Your task to perform on an android device: Toggle the flashlight Image 0: 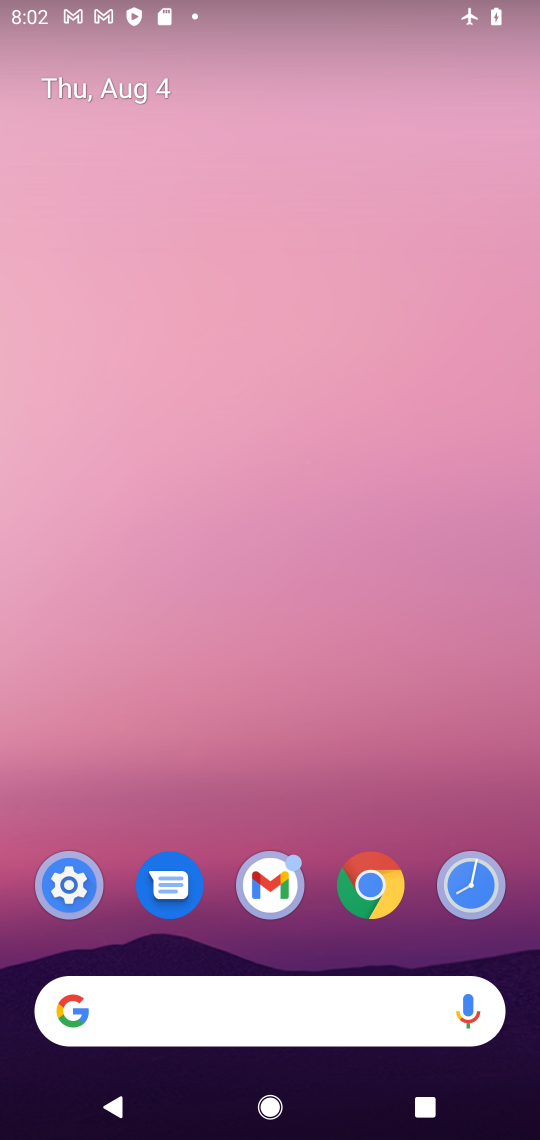
Step 0: press home button
Your task to perform on an android device: Toggle the flashlight Image 1: 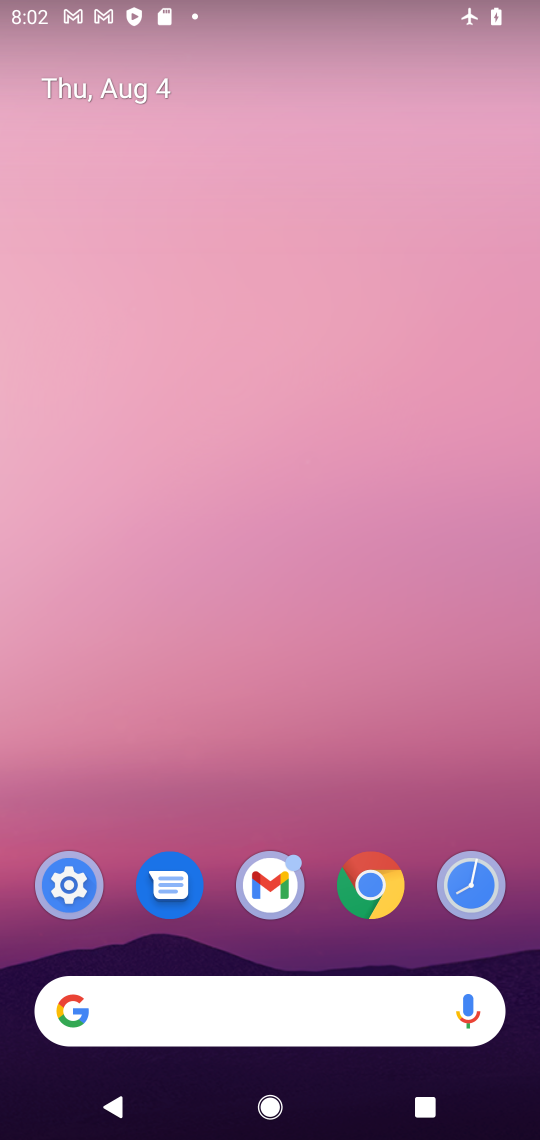
Step 1: task complete